Your task to perform on an android device: Show me productivity apps on the Play Store Image 0: 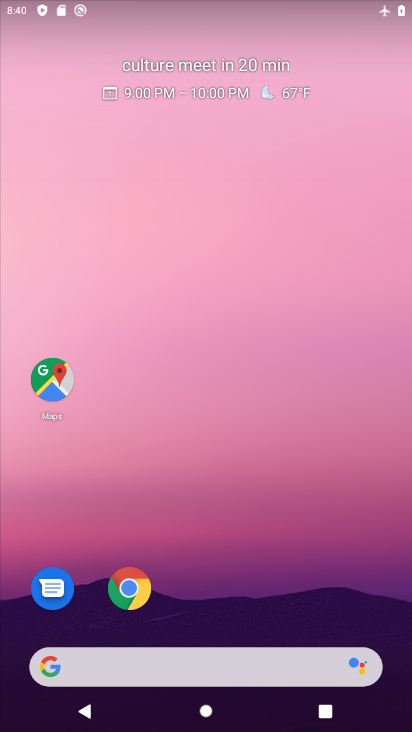
Step 0: drag from (219, 365) to (273, 11)
Your task to perform on an android device: Show me productivity apps on the Play Store Image 1: 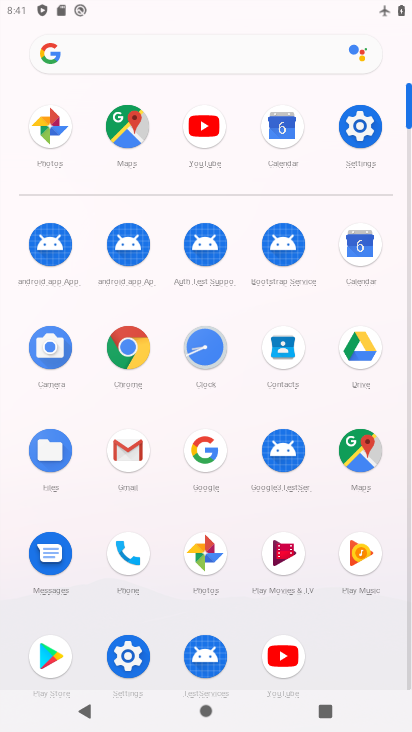
Step 1: click (52, 661)
Your task to perform on an android device: Show me productivity apps on the Play Store Image 2: 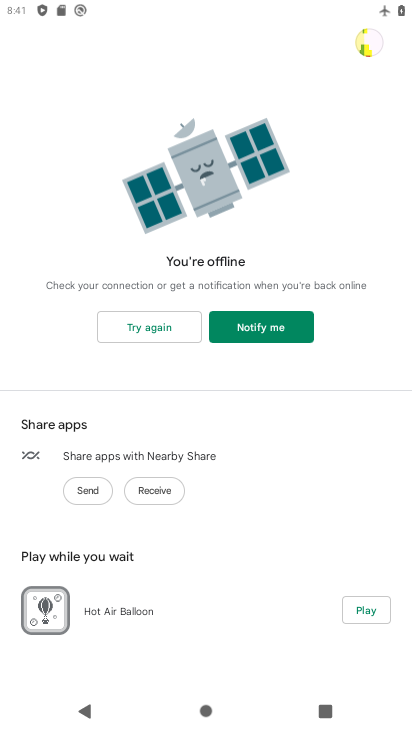
Step 2: click (158, 328)
Your task to perform on an android device: Show me productivity apps on the Play Store Image 3: 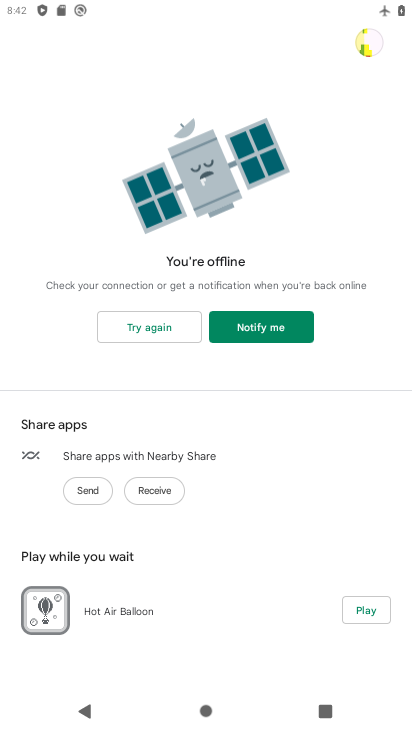
Step 3: task complete